Your task to perform on an android device: Do I have any events today? Image 0: 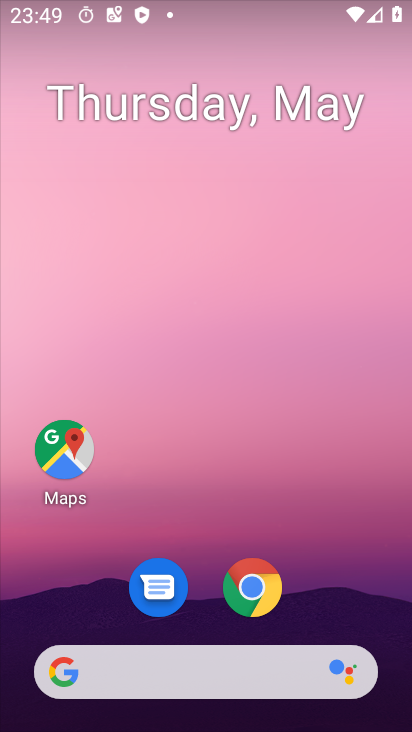
Step 0: drag from (339, 633) to (291, 18)
Your task to perform on an android device: Do I have any events today? Image 1: 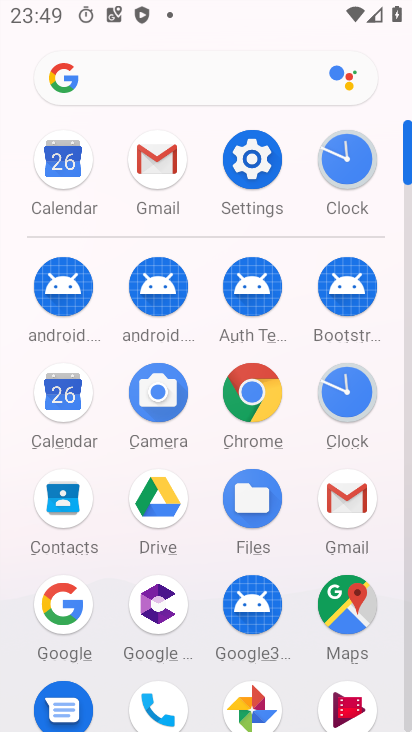
Step 1: click (70, 158)
Your task to perform on an android device: Do I have any events today? Image 2: 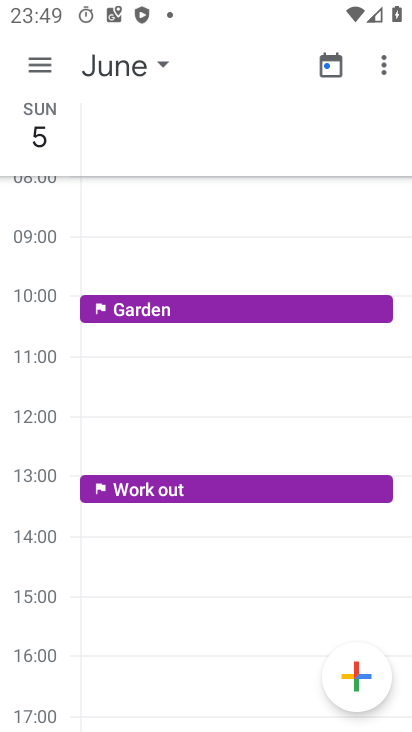
Step 2: click (334, 63)
Your task to perform on an android device: Do I have any events today? Image 3: 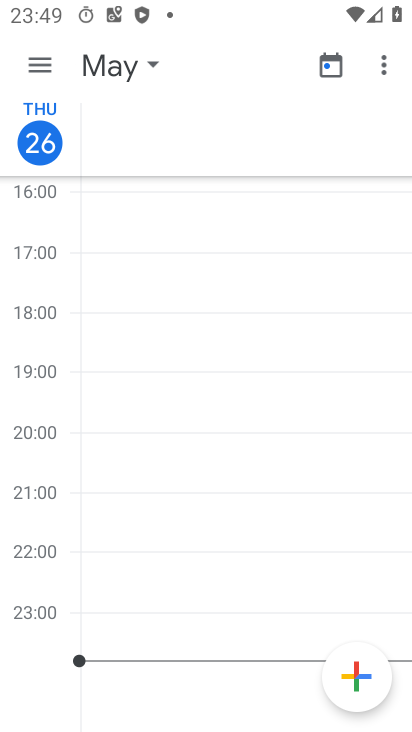
Step 3: drag from (176, 592) to (134, 710)
Your task to perform on an android device: Do I have any events today? Image 4: 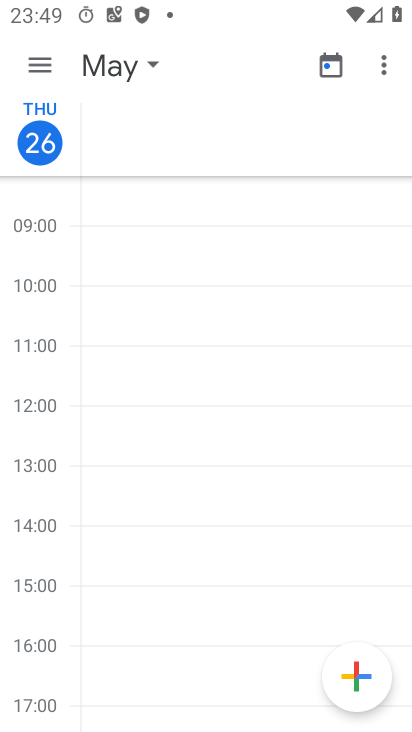
Step 4: drag from (165, 257) to (196, 712)
Your task to perform on an android device: Do I have any events today? Image 5: 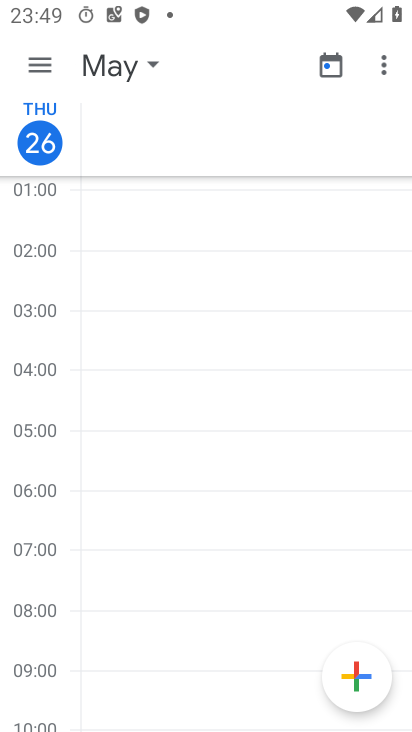
Step 5: drag from (186, 275) to (209, 699)
Your task to perform on an android device: Do I have any events today? Image 6: 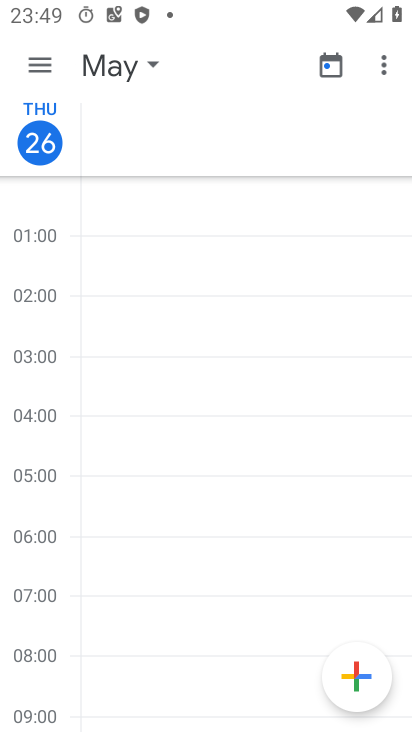
Step 6: drag from (221, 578) to (187, 345)
Your task to perform on an android device: Do I have any events today? Image 7: 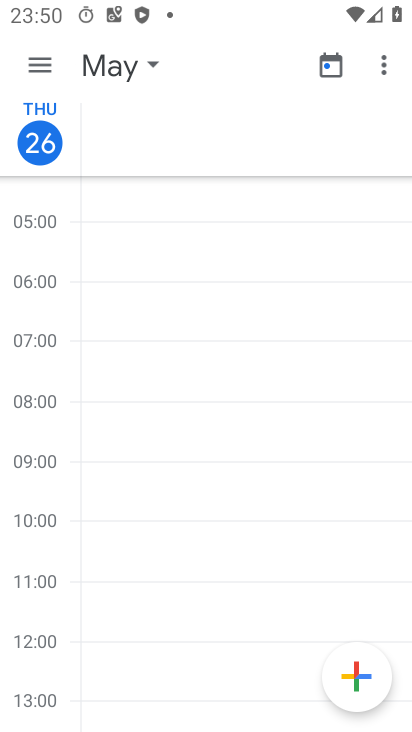
Step 7: drag from (133, 531) to (121, 401)
Your task to perform on an android device: Do I have any events today? Image 8: 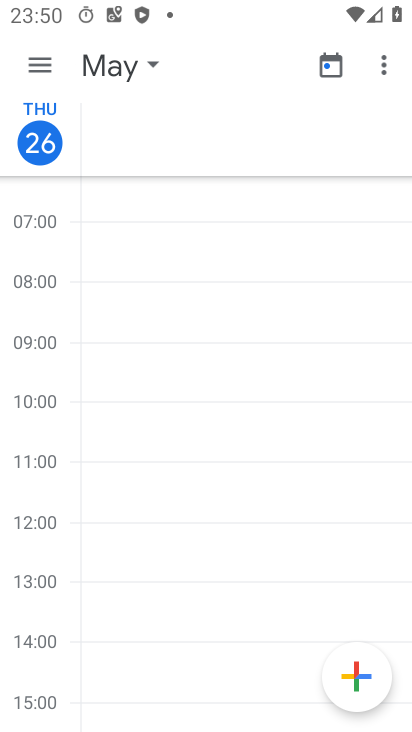
Step 8: drag from (157, 681) to (121, 257)
Your task to perform on an android device: Do I have any events today? Image 9: 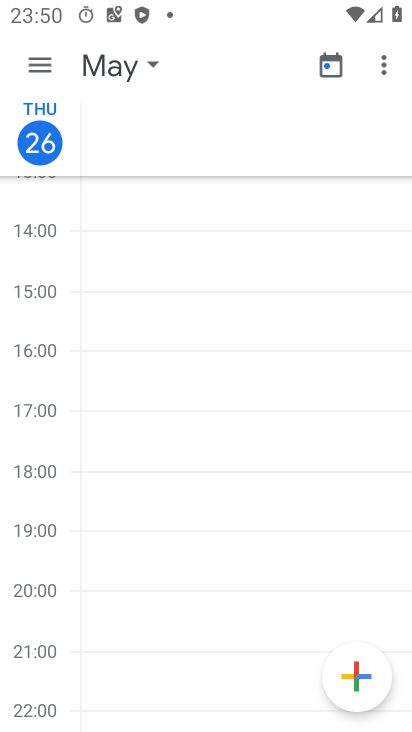
Step 9: drag from (96, 679) to (73, 527)
Your task to perform on an android device: Do I have any events today? Image 10: 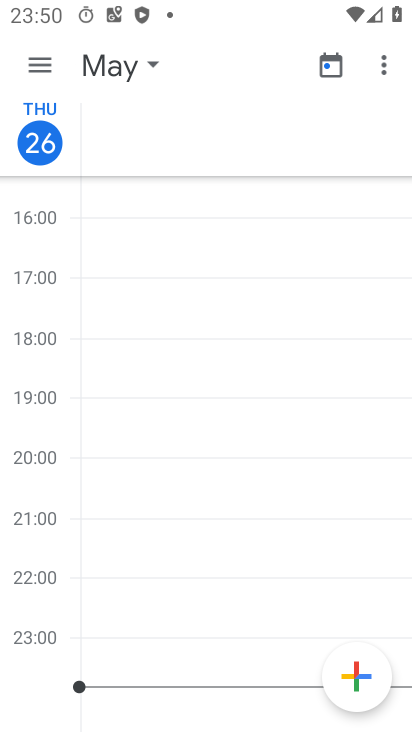
Step 10: drag from (105, 630) to (72, 347)
Your task to perform on an android device: Do I have any events today? Image 11: 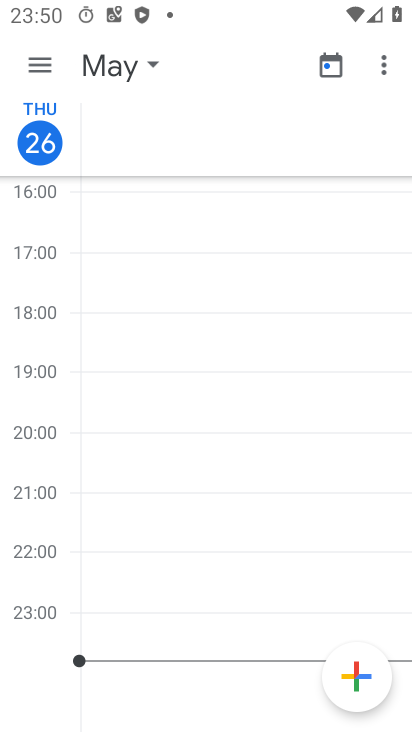
Step 11: click (31, 70)
Your task to perform on an android device: Do I have any events today? Image 12: 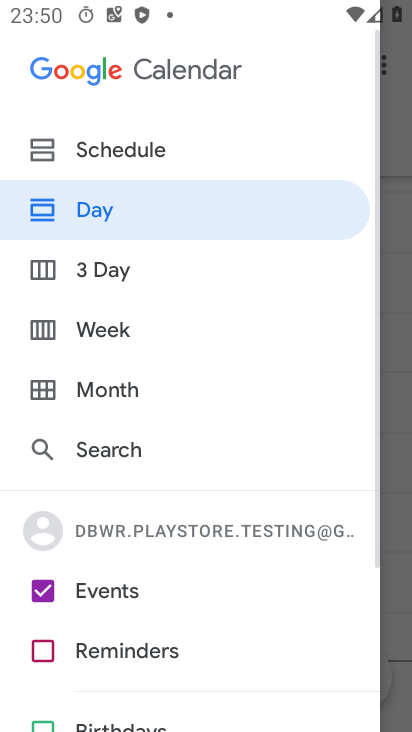
Step 12: click (58, 143)
Your task to perform on an android device: Do I have any events today? Image 13: 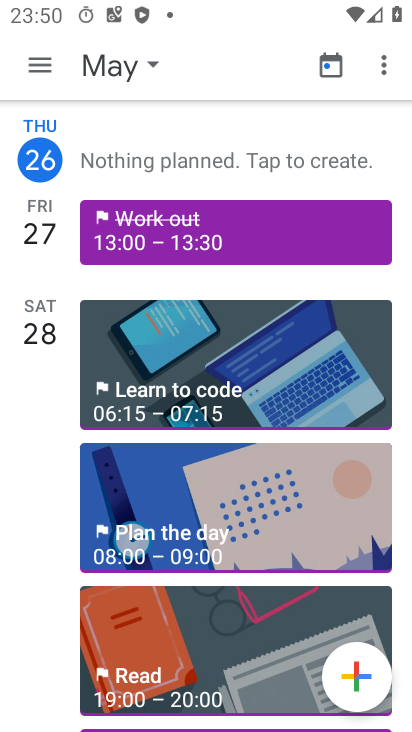
Step 13: click (127, 165)
Your task to perform on an android device: Do I have any events today? Image 14: 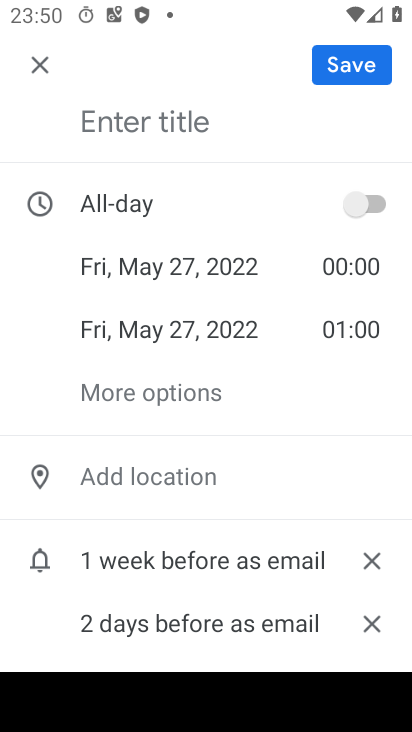
Step 14: task complete